Your task to perform on an android device: Open the calendar app, open the side menu, and click the "Day" option Image 0: 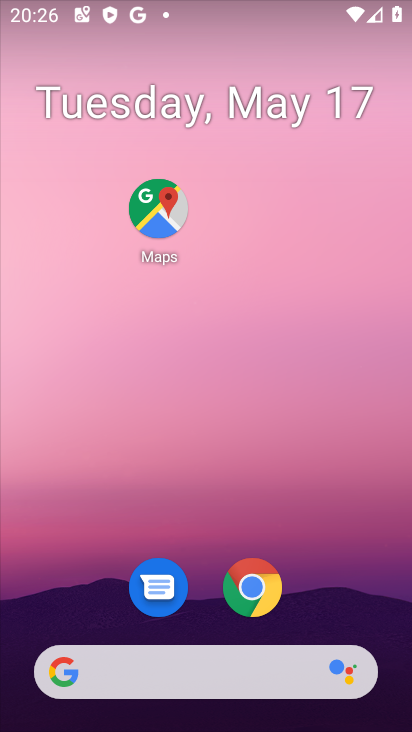
Step 0: drag from (1, 713) to (301, 113)
Your task to perform on an android device: Open the calendar app, open the side menu, and click the "Day" option Image 1: 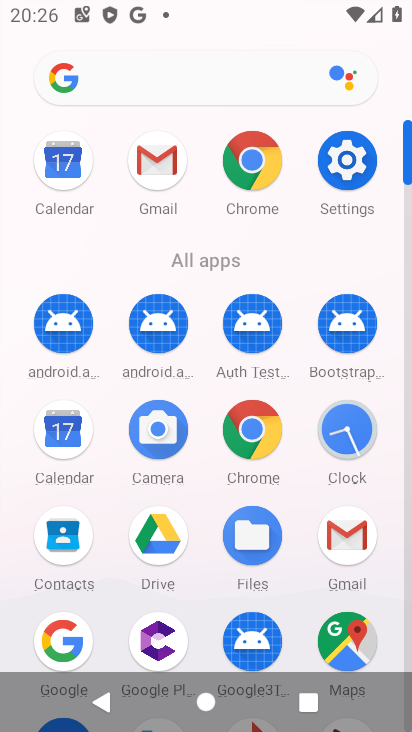
Step 1: click (69, 422)
Your task to perform on an android device: Open the calendar app, open the side menu, and click the "Day" option Image 2: 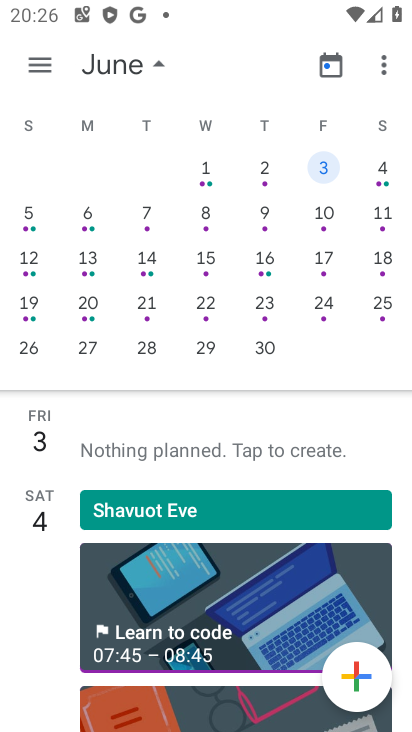
Step 2: click (42, 67)
Your task to perform on an android device: Open the calendar app, open the side menu, and click the "Day" option Image 3: 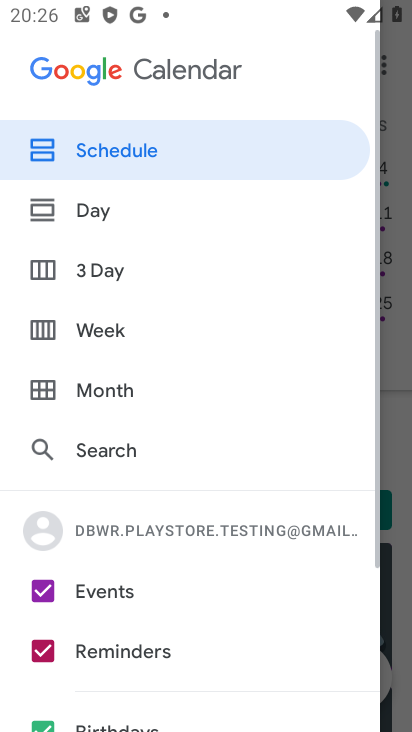
Step 3: click (99, 202)
Your task to perform on an android device: Open the calendar app, open the side menu, and click the "Day" option Image 4: 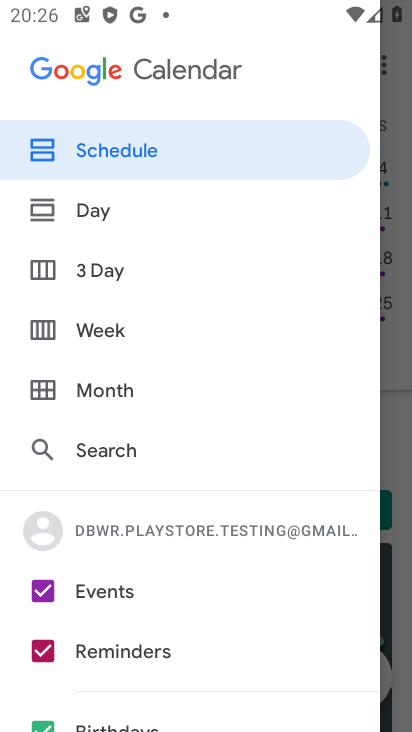
Step 4: click (115, 202)
Your task to perform on an android device: Open the calendar app, open the side menu, and click the "Day" option Image 5: 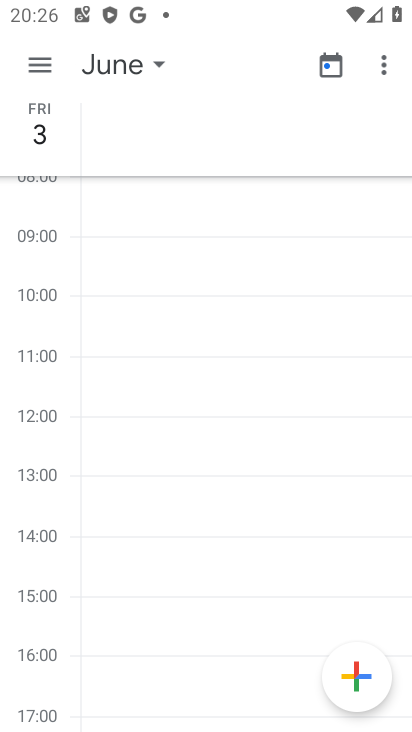
Step 5: task complete